Your task to perform on an android device: delete a single message in the gmail app Image 0: 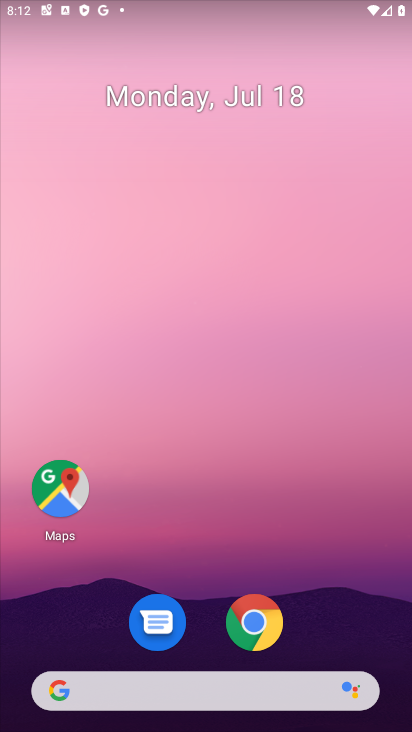
Step 0: drag from (202, 728) to (182, 212)
Your task to perform on an android device: delete a single message in the gmail app Image 1: 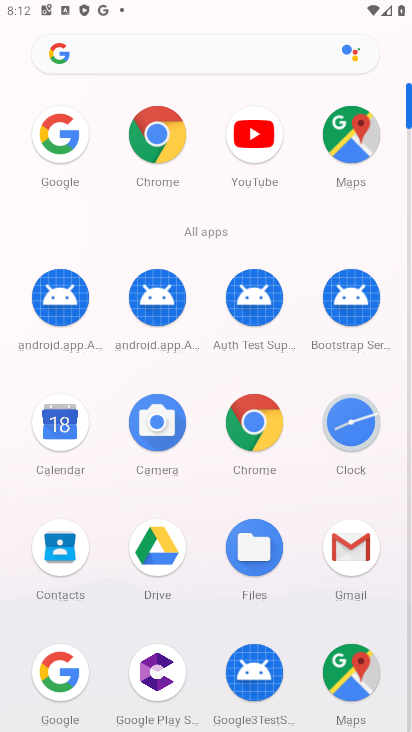
Step 1: click (354, 560)
Your task to perform on an android device: delete a single message in the gmail app Image 2: 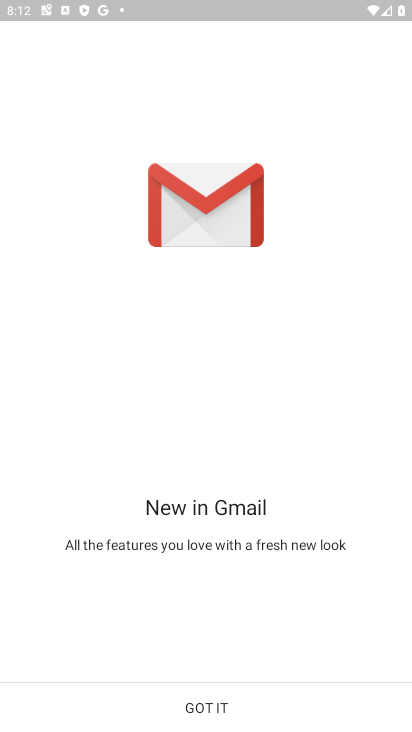
Step 2: click (197, 699)
Your task to perform on an android device: delete a single message in the gmail app Image 3: 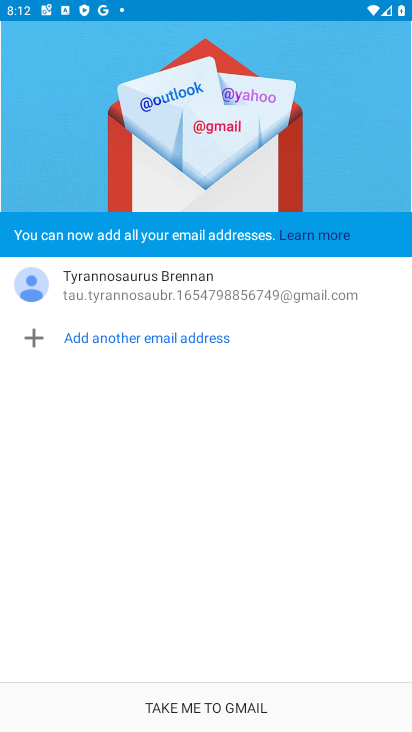
Step 3: click (223, 711)
Your task to perform on an android device: delete a single message in the gmail app Image 4: 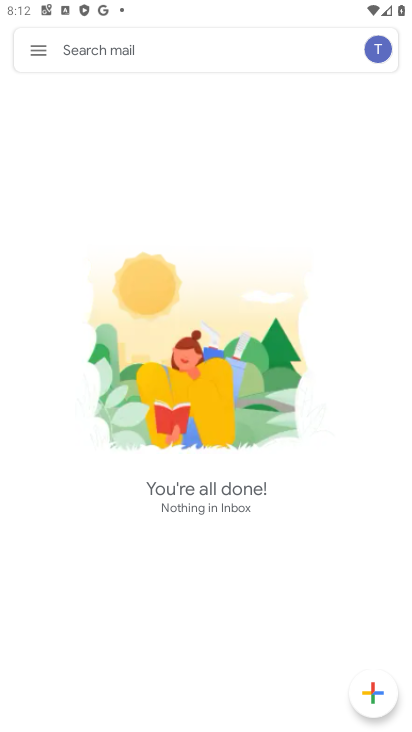
Step 4: click (31, 54)
Your task to perform on an android device: delete a single message in the gmail app Image 5: 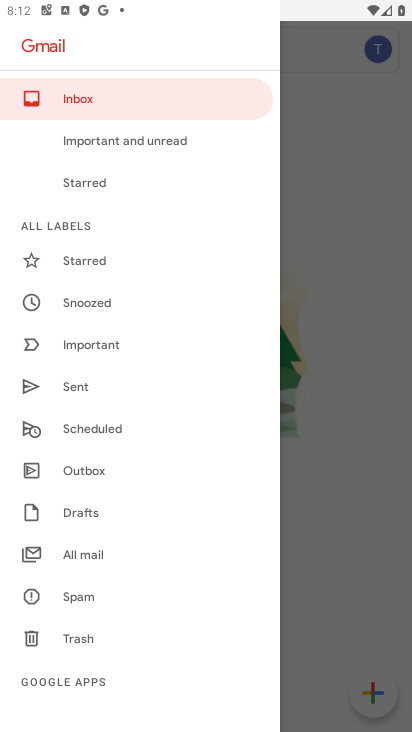
Step 5: click (99, 562)
Your task to perform on an android device: delete a single message in the gmail app Image 6: 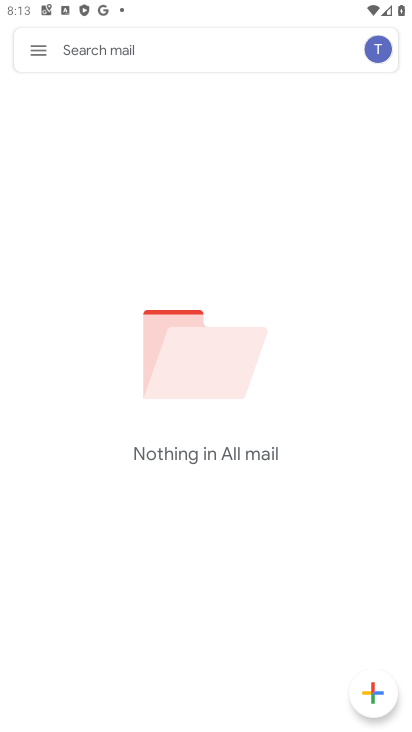
Step 6: task complete